Your task to perform on an android device: Open Chrome and go to settings Image 0: 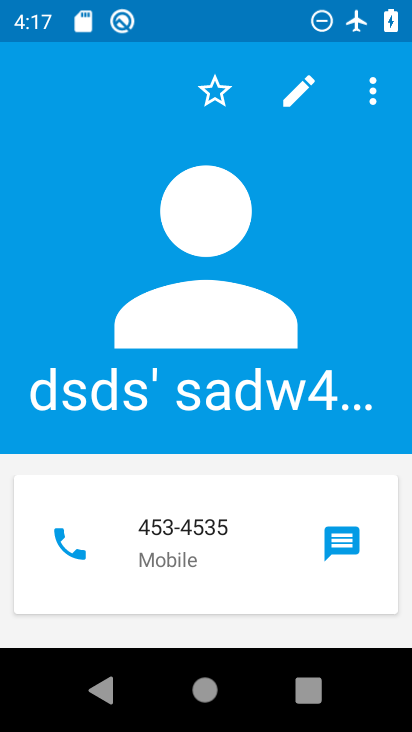
Step 0: press home button
Your task to perform on an android device: Open Chrome and go to settings Image 1: 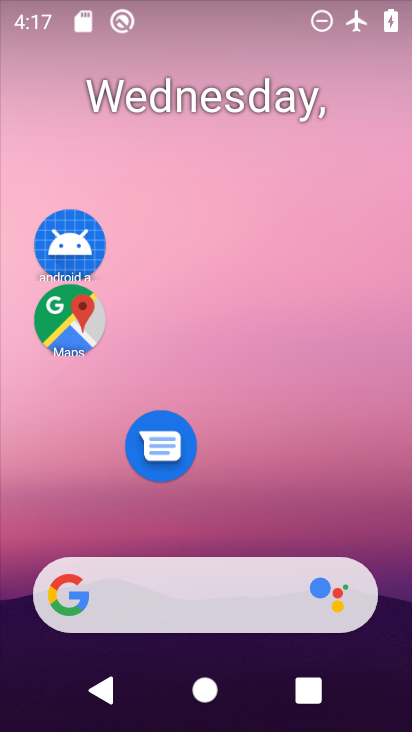
Step 1: drag from (290, 520) to (251, 70)
Your task to perform on an android device: Open Chrome and go to settings Image 2: 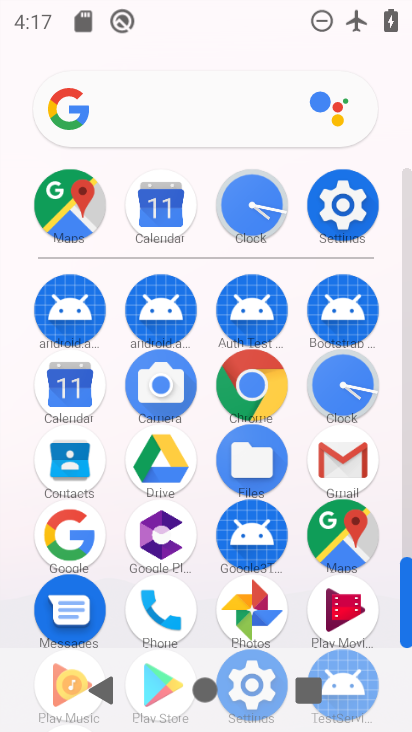
Step 2: click (270, 380)
Your task to perform on an android device: Open Chrome and go to settings Image 3: 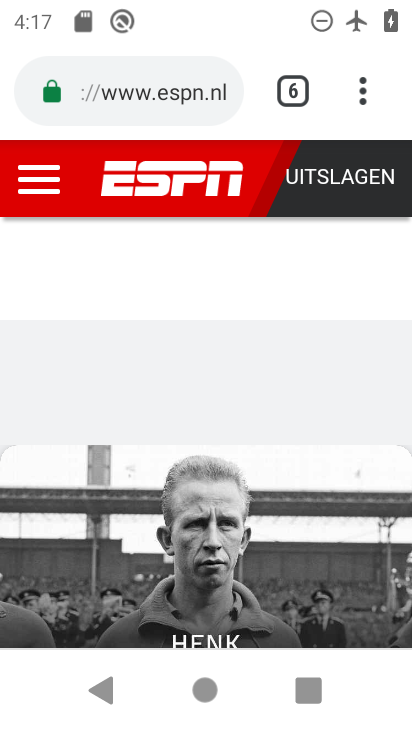
Step 3: click (347, 80)
Your task to perform on an android device: Open Chrome and go to settings Image 4: 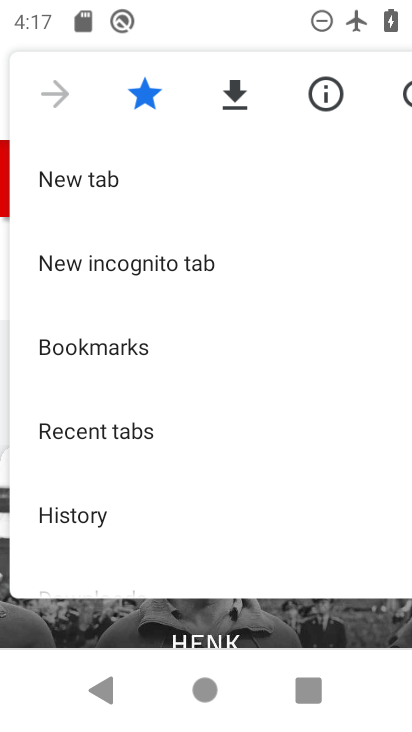
Step 4: drag from (191, 573) to (182, 338)
Your task to perform on an android device: Open Chrome and go to settings Image 5: 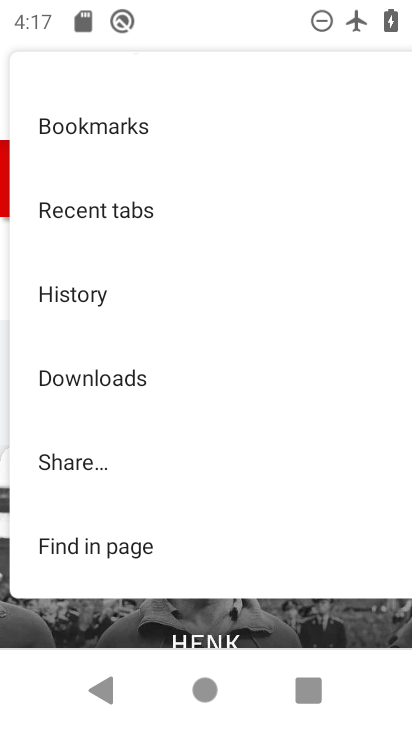
Step 5: drag from (147, 578) to (174, 217)
Your task to perform on an android device: Open Chrome and go to settings Image 6: 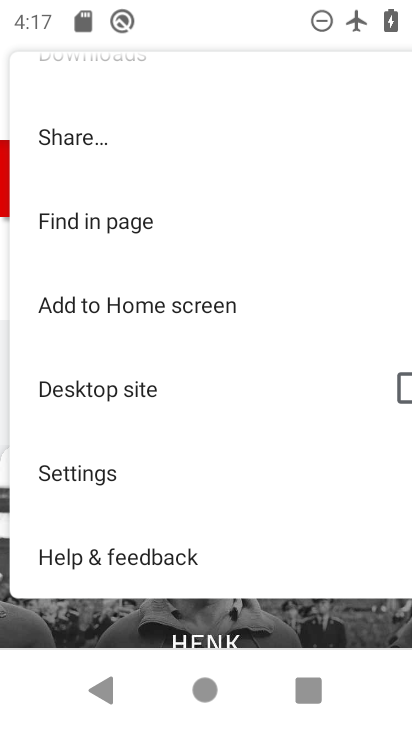
Step 6: click (133, 465)
Your task to perform on an android device: Open Chrome and go to settings Image 7: 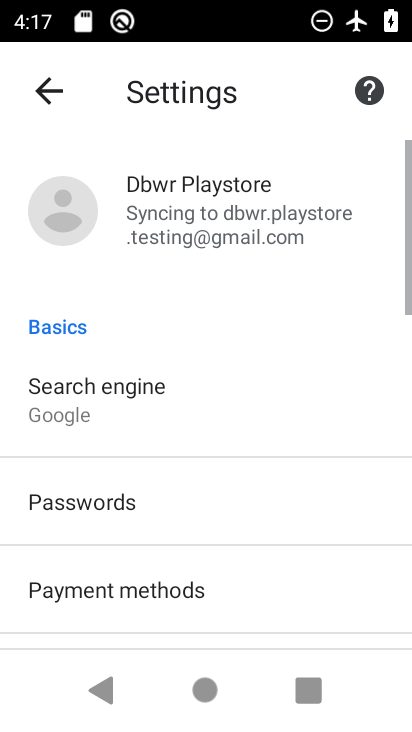
Step 7: task complete